Your task to perform on an android device: Go to network settings Image 0: 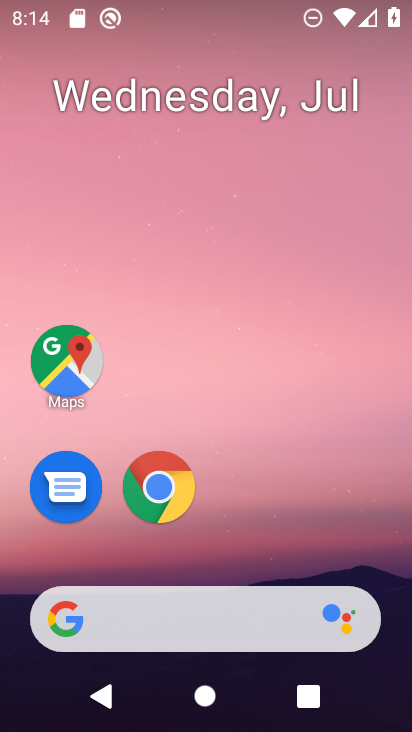
Step 0: drag from (357, 486) to (345, 111)
Your task to perform on an android device: Go to network settings Image 1: 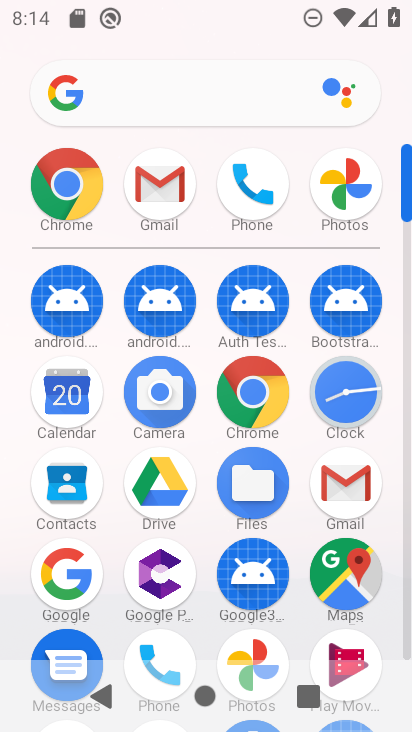
Step 1: drag from (391, 460) to (390, 176)
Your task to perform on an android device: Go to network settings Image 2: 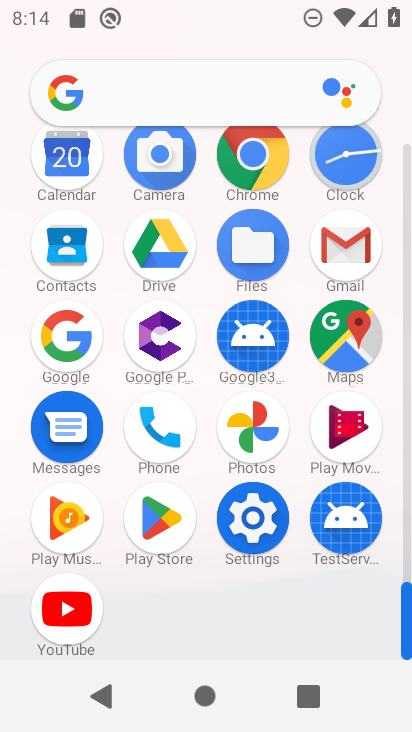
Step 2: click (266, 515)
Your task to perform on an android device: Go to network settings Image 3: 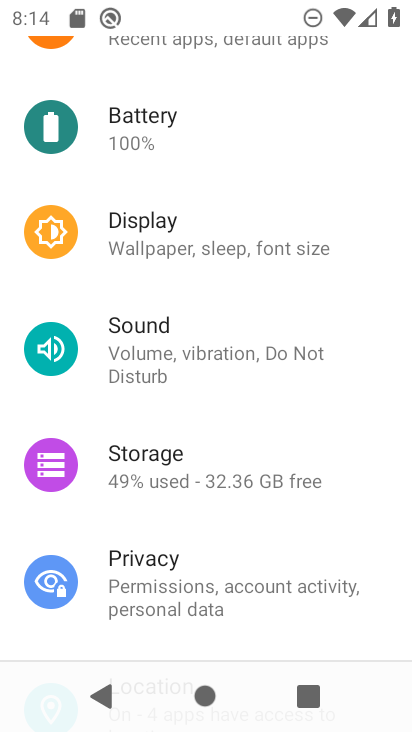
Step 3: drag from (348, 278) to (357, 374)
Your task to perform on an android device: Go to network settings Image 4: 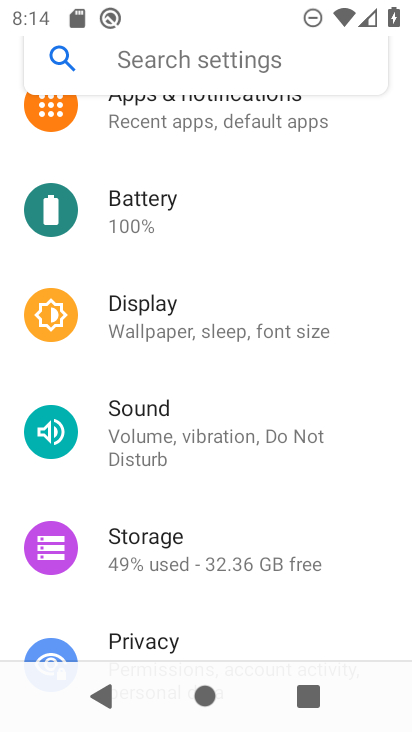
Step 4: drag from (369, 295) to (369, 392)
Your task to perform on an android device: Go to network settings Image 5: 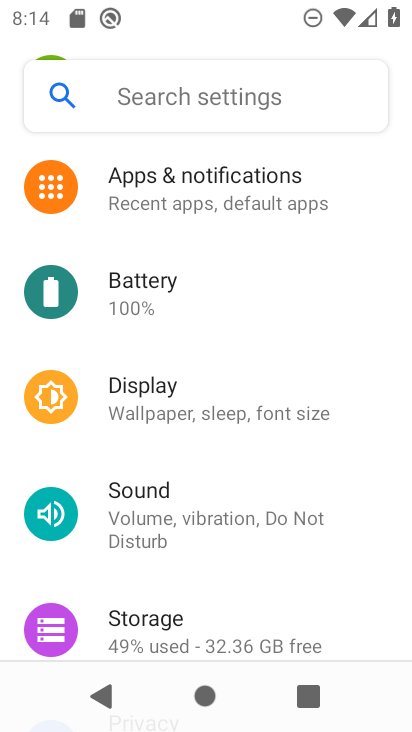
Step 5: drag from (355, 275) to (353, 379)
Your task to perform on an android device: Go to network settings Image 6: 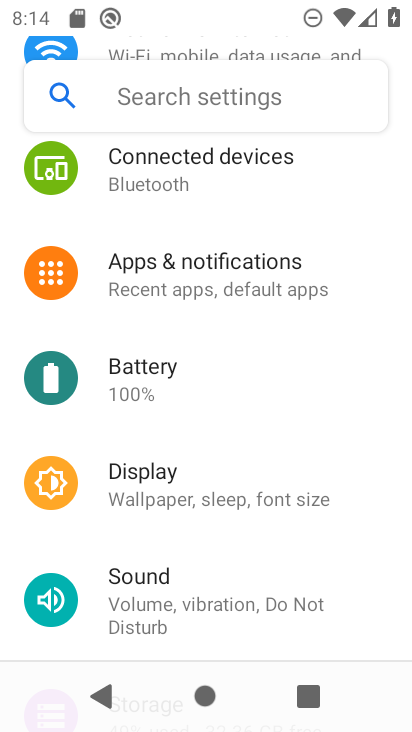
Step 6: drag from (340, 232) to (368, 369)
Your task to perform on an android device: Go to network settings Image 7: 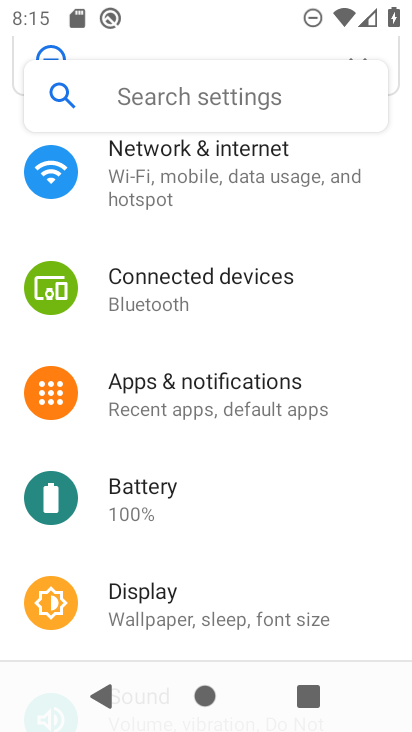
Step 7: drag from (360, 241) to (371, 466)
Your task to perform on an android device: Go to network settings Image 8: 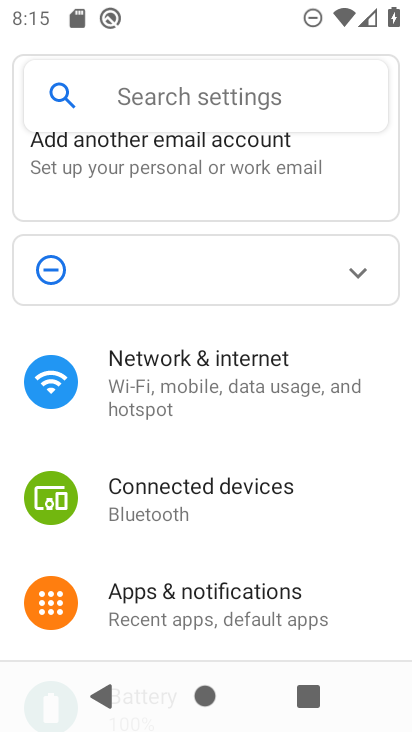
Step 8: click (263, 388)
Your task to perform on an android device: Go to network settings Image 9: 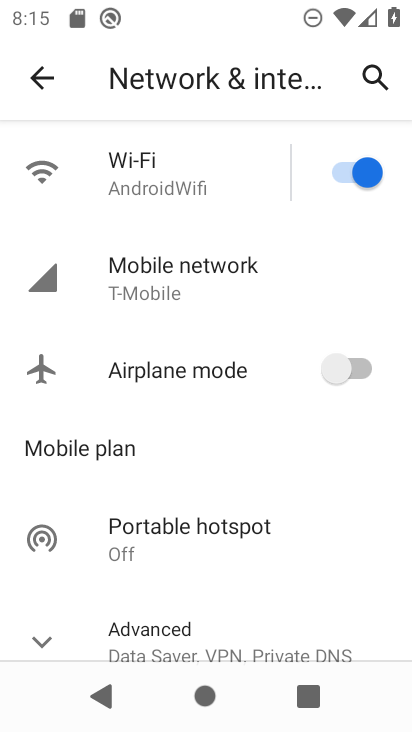
Step 9: task complete